Your task to perform on an android device: toggle sleep mode Image 0: 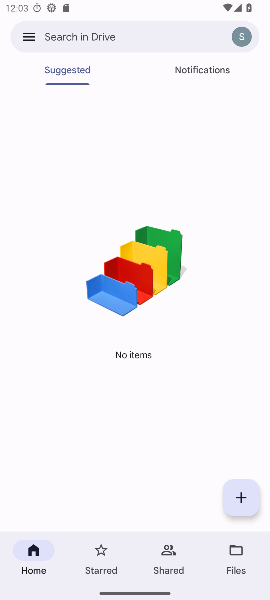
Step 0: press home button
Your task to perform on an android device: toggle sleep mode Image 1: 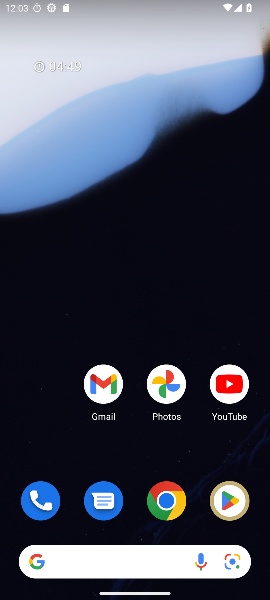
Step 1: drag from (113, 445) to (74, 189)
Your task to perform on an android device: toggle sleep mode Image 2: 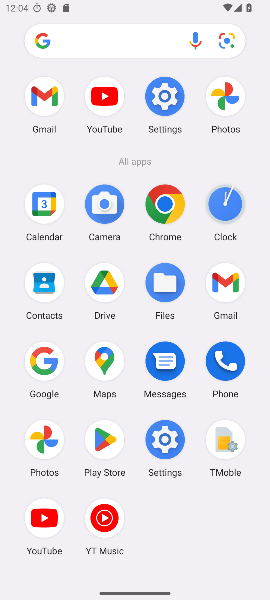
Step 2: click (170, 445)
Your task to perform on an android device: toggle sleep mode Image 3: 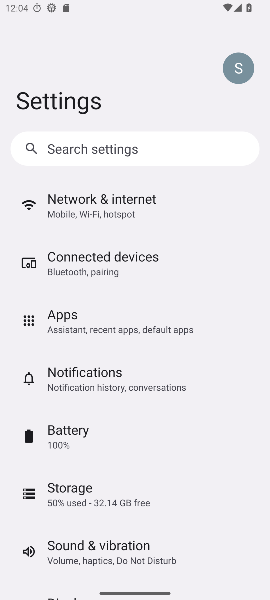
Step 3: drag from (144, 559) to (64, 333)
Your task to perform on an android device: toggle sleep mode Image 4: 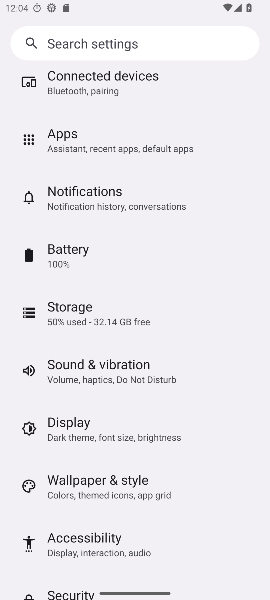
Step 4: click (97, 419)
Your task to perform on an android device: toggle sleep mode Image 5: 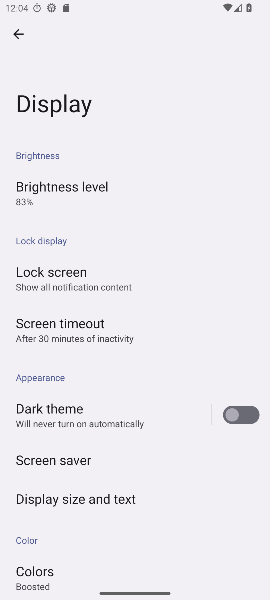
Step 5: task complete